Your task to perform on an android device: change timer sound Image 0: 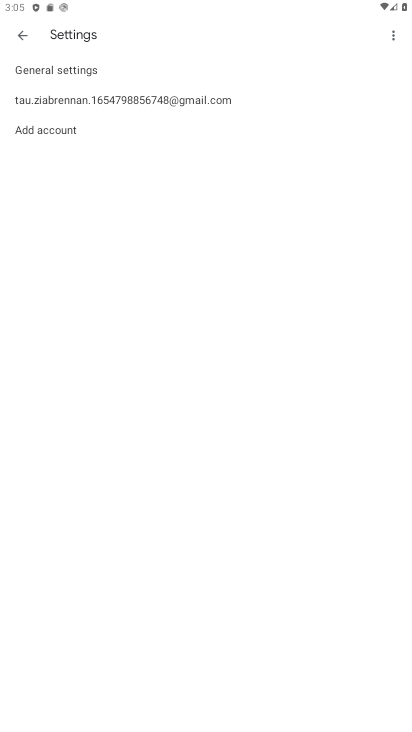
Step 0: press back button
Your task to perform on an android device: change timer sound Image 1: 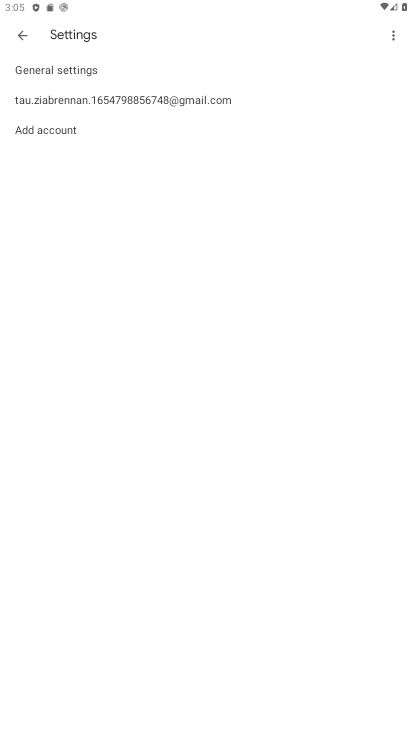
Step 1: press back button
Your task to perform on an android device: change timer sound Image 2: 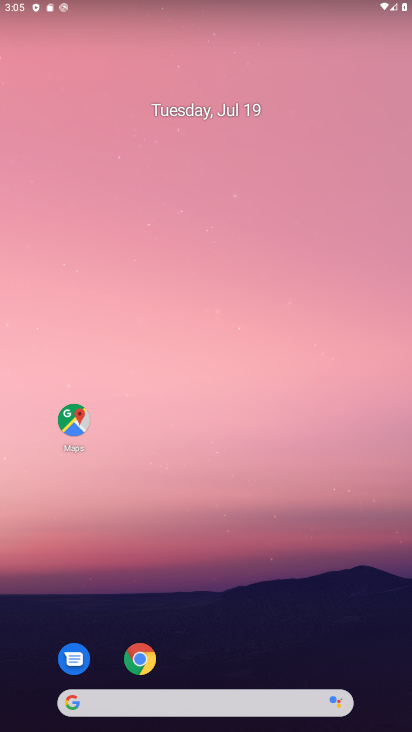
Step 2: drag from (212, 645) to (167, 55)
Your task to perform on an android device: change timer sound Image 3: 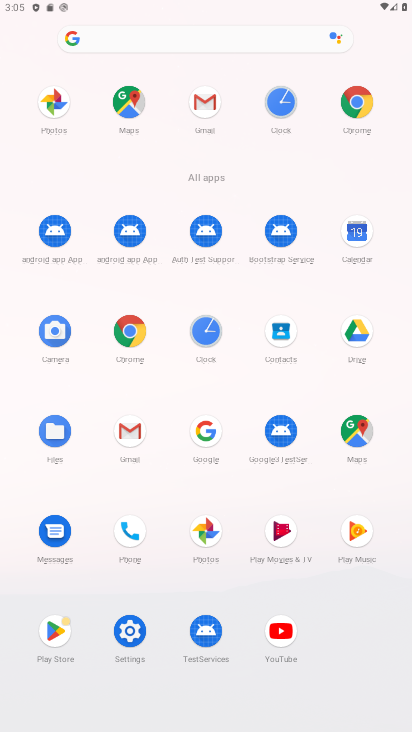
Step 3: click (127, 646)
Your task to perform on an android device: change timer sound Image 4: 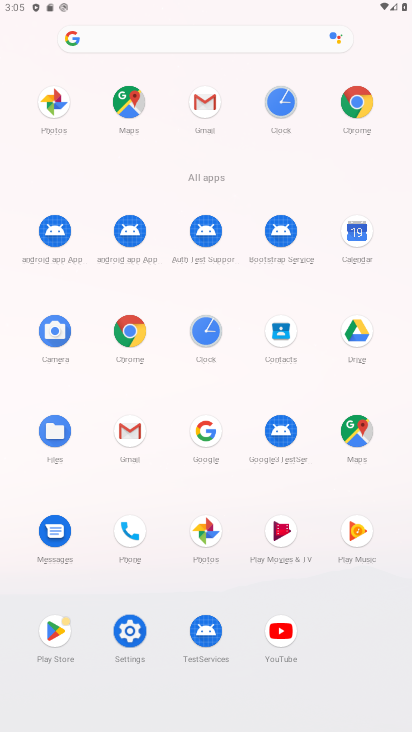
Step 4: click (126, 645)
Your task to perform on an android device: change timer sound Image 5: 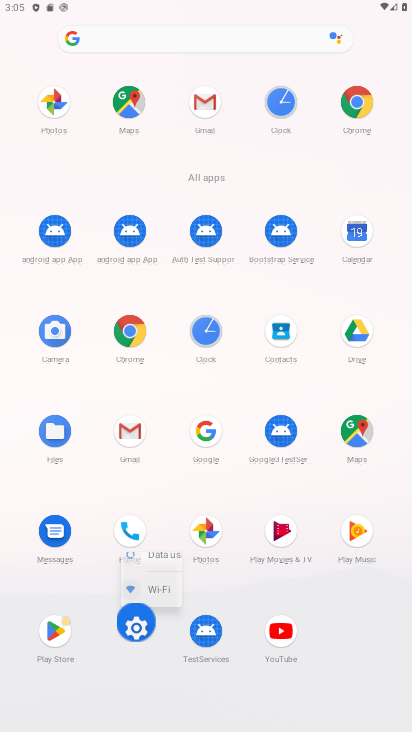
Step 5: click (132, 636)
Your task to perform on an android device: change timer sound Image 6: 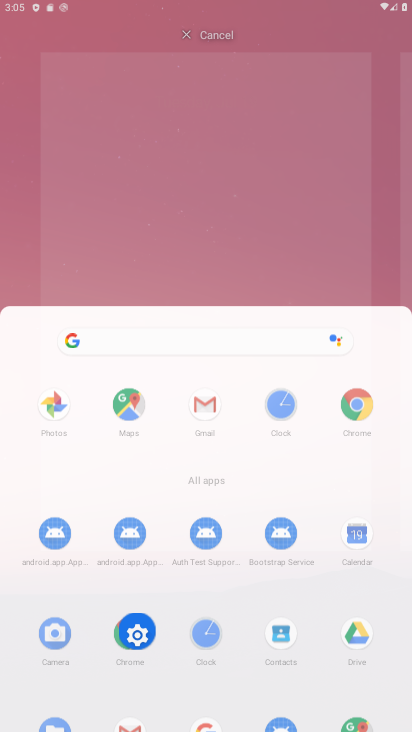
Step 6: click (133, 637)
Your task to perform on an android device: change timer sound Image 7: 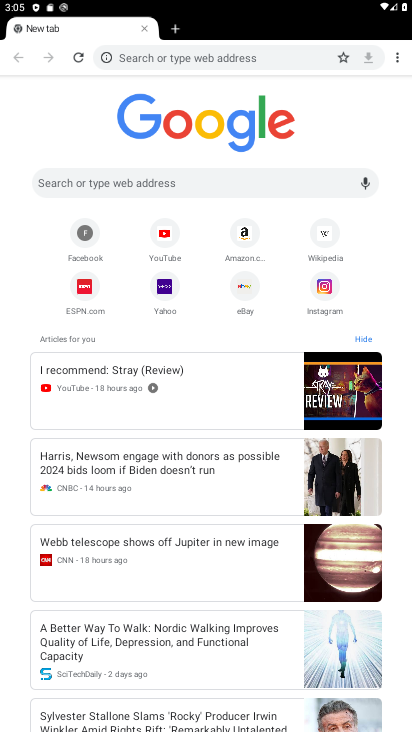
Step 7: press back button
Your task to perform on an android device: change timer sound Image 8: 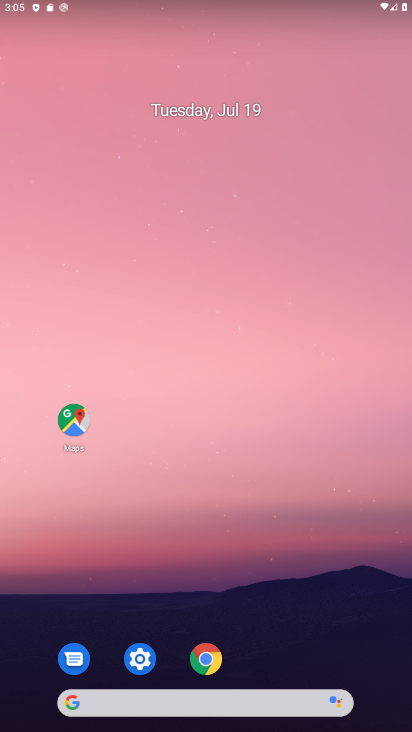
Step 8: drag from (213, 536) to (141, 17)
Your task to perform on an android device: change timer sound Image 9: 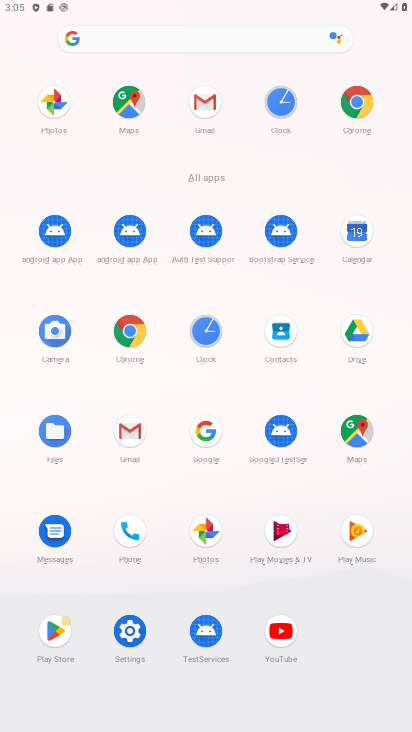
Step 9: click (129, 633)
Your task to perform on an android device: change timer sound Image 10: 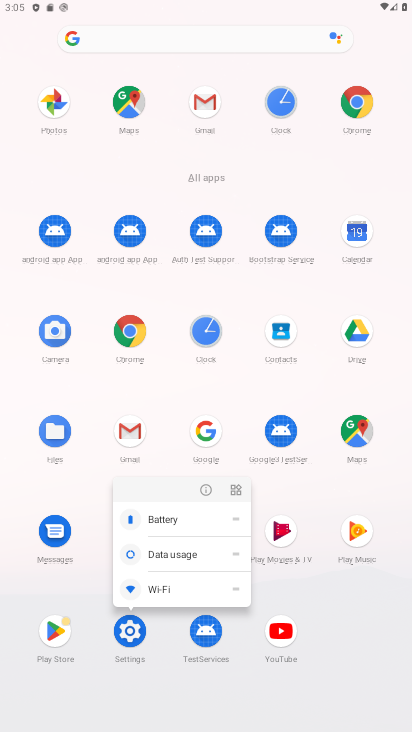
Step 10: click (129, 631)
Your task to perform on an android device: change timer sound Image 11: 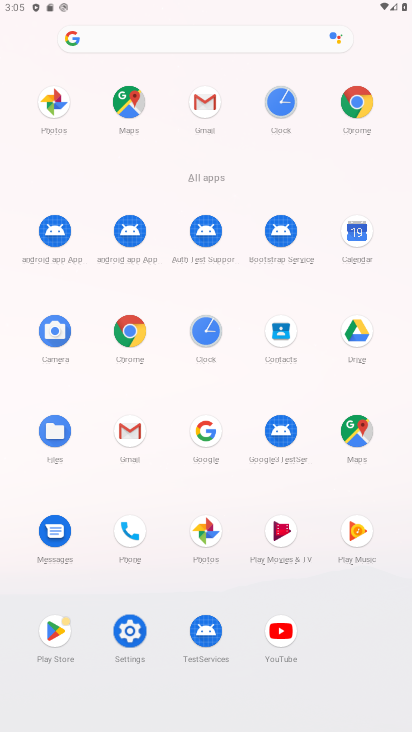
Step 11: click (129, 631)
Your task to perform on an android device: change timer sound Image 12: 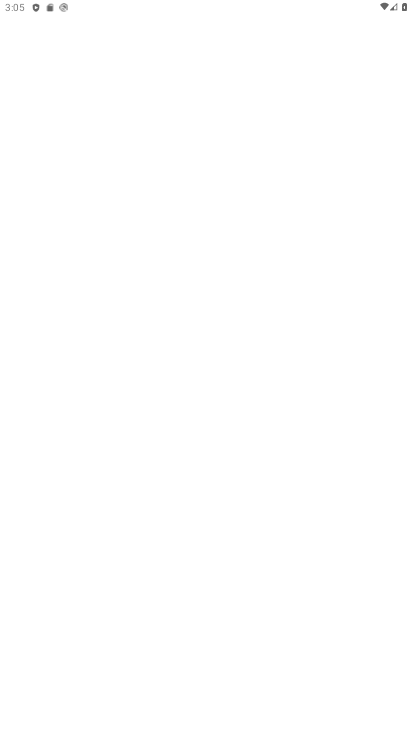
Step 12: click (133, 630)
Your task to perform on an android device: change timer sound Image 13: 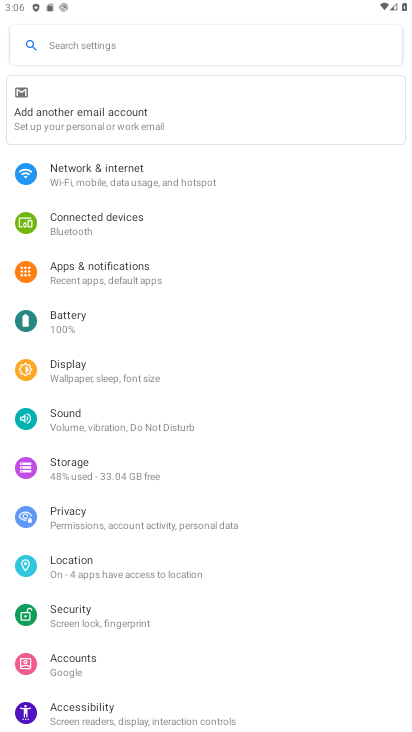
Step 13: click (81, 382)
Your task to perform on an android device: change timer sound Image 14: 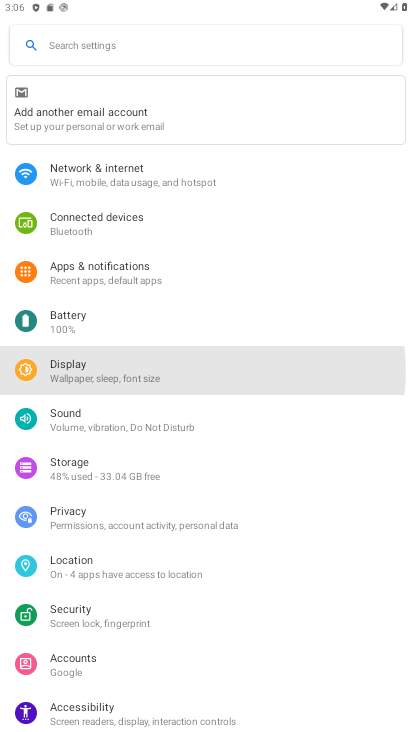
Step 14: click (78, 380)
Your task to perform on an android device: change timer sound Image 15: 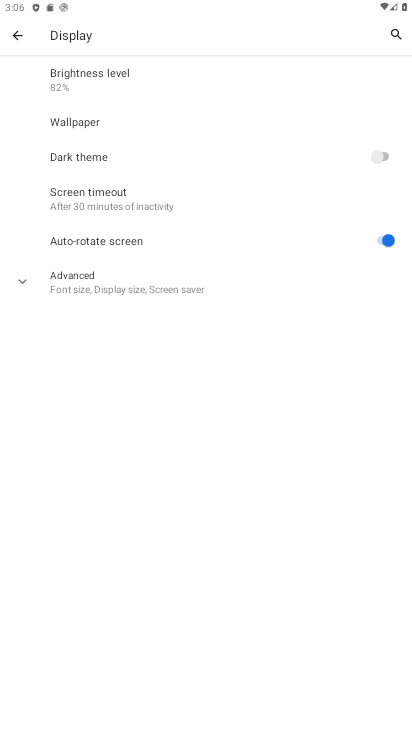
Step 15: click (83, 288)
Your task to perform on an android device: change timer sound Image 16: 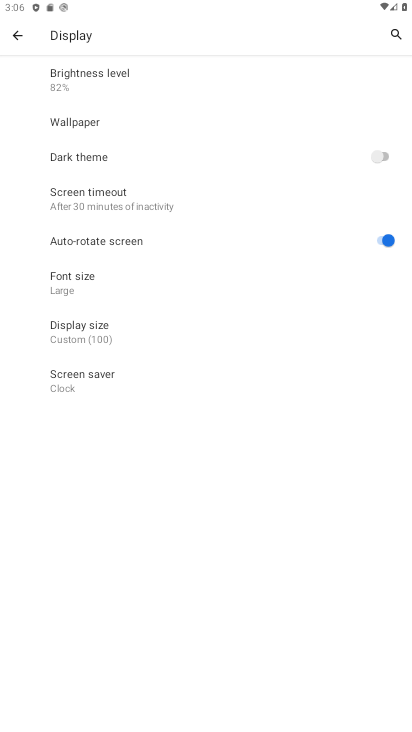
Step 16: click (73, 284)
Your task to perform on an android device: change timer sound Image 17: 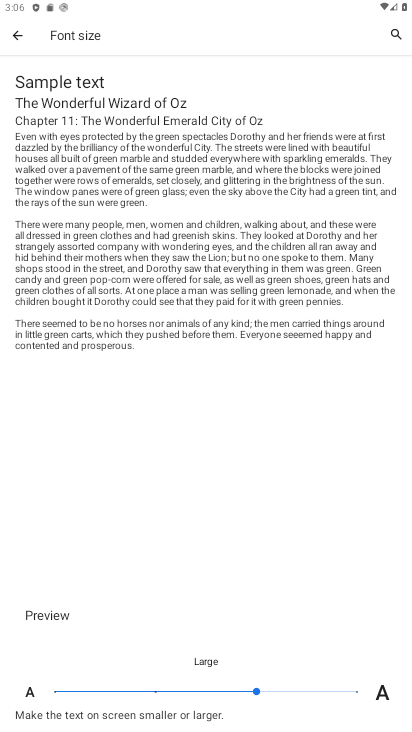
Step 17: click (361, 692)
Your task to perform on an android device: change timer sound Image 18: 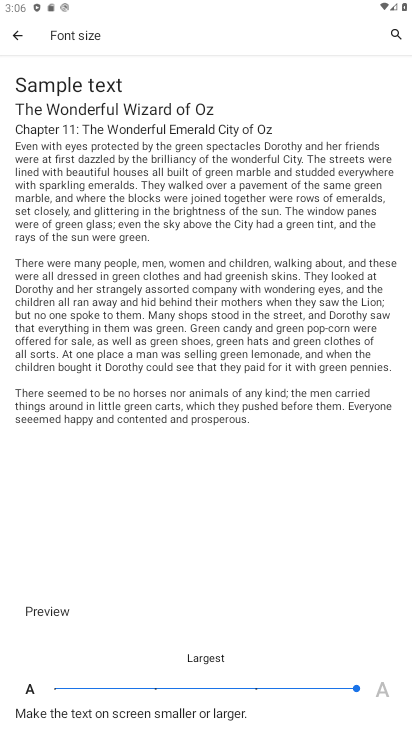
Step 18: press back button
Your task to perform on an android device: change timer sound Image 19: 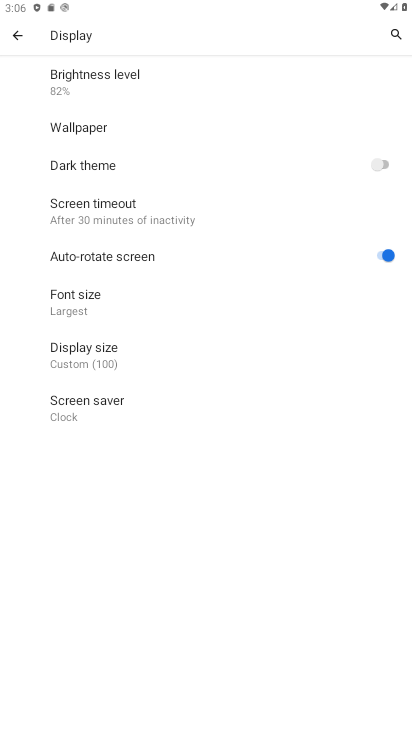
Step 19: press home button
Your task to perform on an android device: change timer sound Image 20: 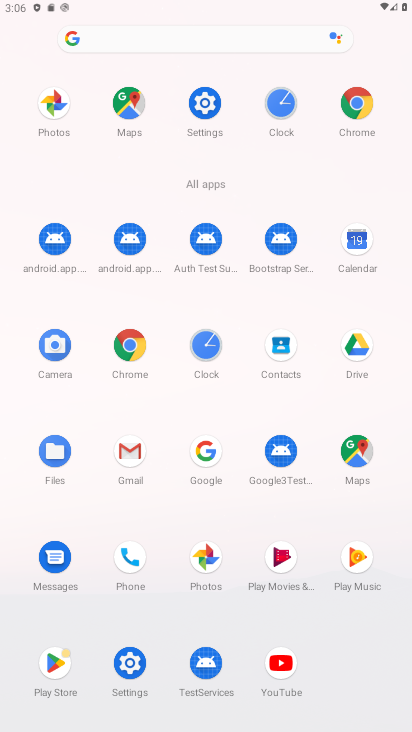
Step 20: click (202, 353)
Your task to perform on an android device: change timer sound Image 21: 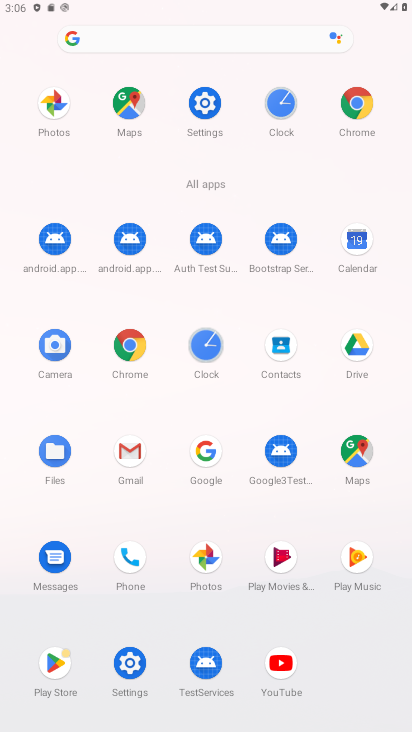
Step 21: click (205, 349)
Your task to perform on an android device: change timer sound Image 22: 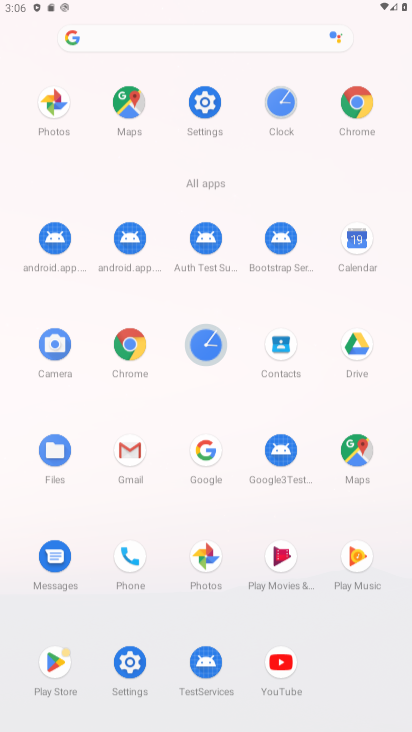
Step 22: click (207, 348)
Your task to perform on an android device: change timer sound Image 23: 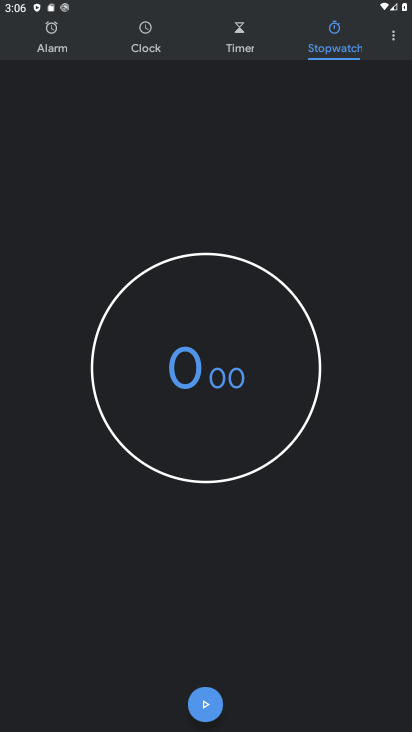
Step 23: drag from (399, 40) to (384, 142)
Your task to perform on an android device: change timer sound Image 24: 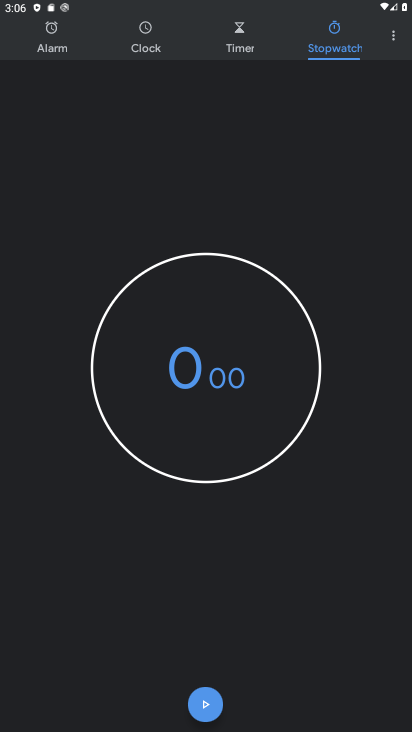
Step 24: click (318, 57)
Your task to perform on an android device: change timer sound Image 25: 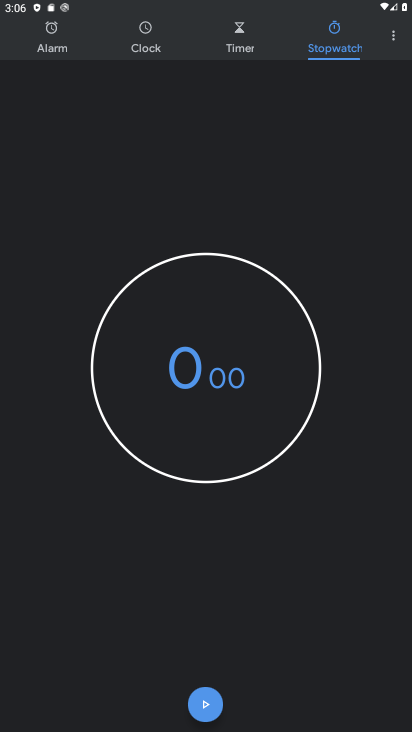
Step 25: click (393, 38)
Your task to perform on an android device: change timer sound Image 26: 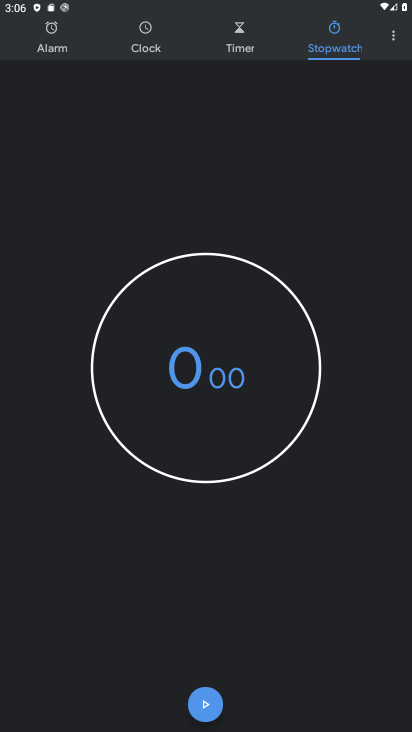
Step 26: click (393, 38)
Your task to perform on an android device: change timer sound Image 27: 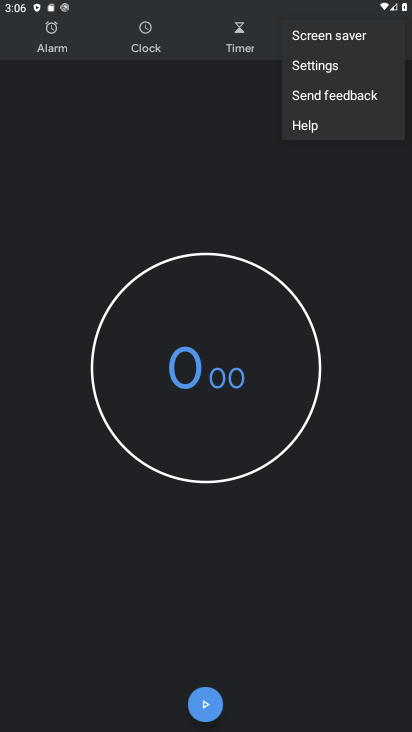
Step 27: click (315, 63)
Your task to perform on an android device: change timer sound Image 28: 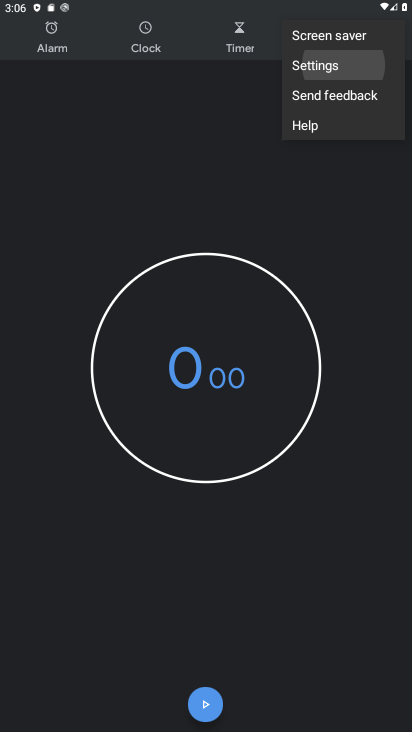
Step 28: click (315, 63)
Your task to perform on an android device: change timer sound Image 29: 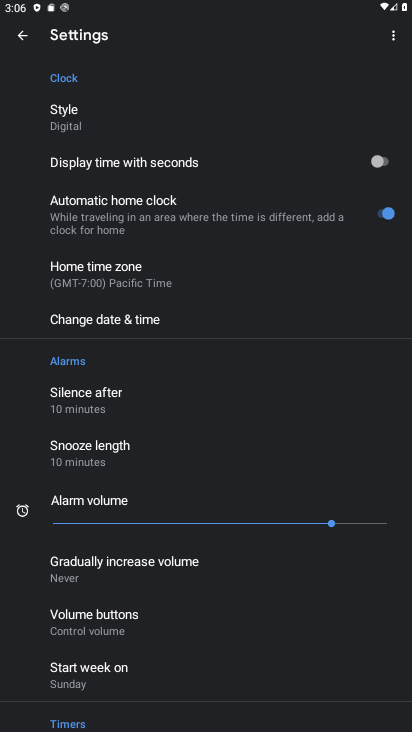
Step 29: drag from (124, 591) to (147, 365)
Your task to perform on an android device: change timer sound Image 30: 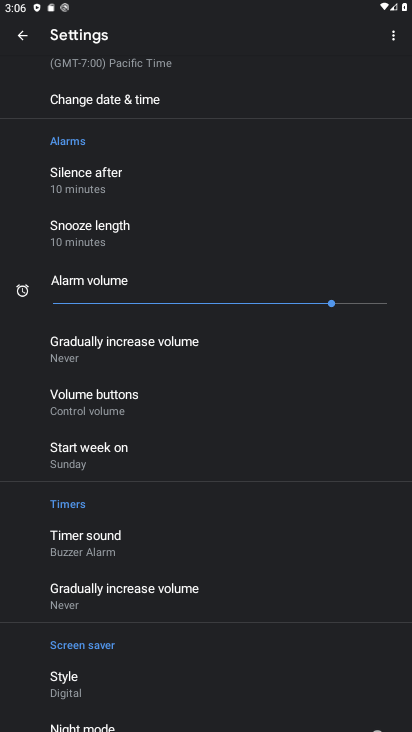
Step 30: click (87, 543)
Your task to perform on an android device: change timer sound Image 31: 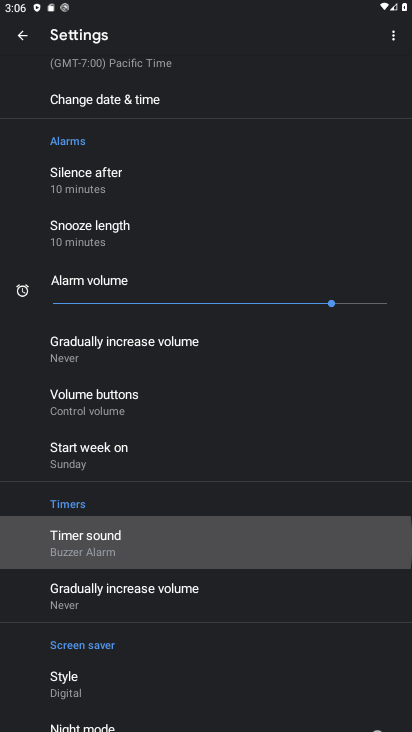
Step 31: click (87, 543)
Your task to perform on an android device: change timer sound Image 32: 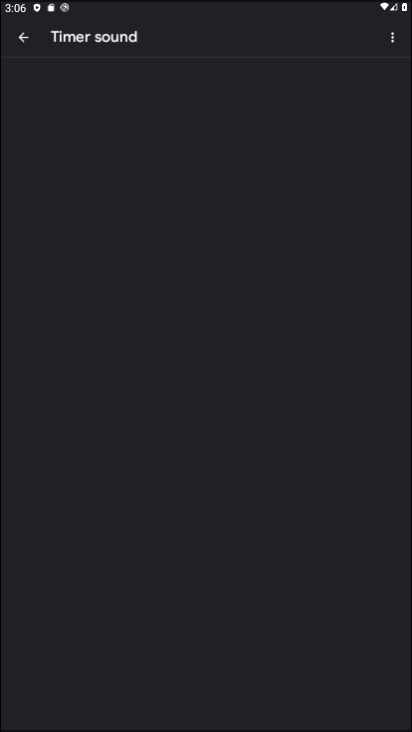
Step 32: click (87, 544)
Your task to perform on an android device: change timer sound Image 33: 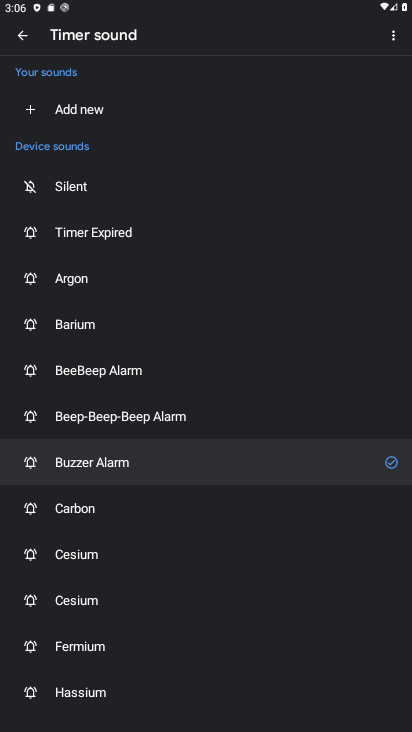
Step 33: click (77, 556)
Your task to perform on an android device: change timer sound Image 34: 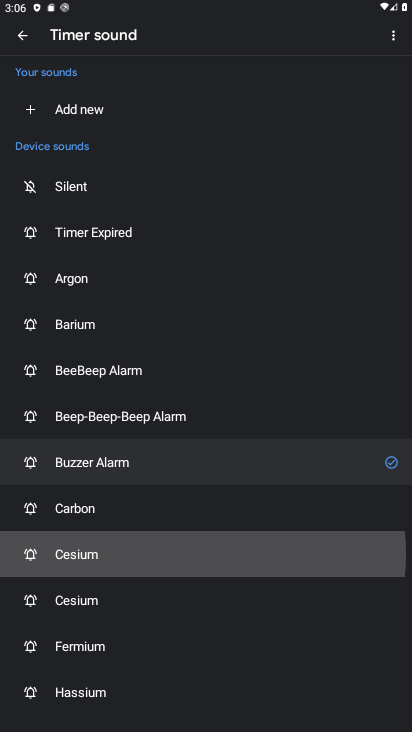
Step 34: click (78, 553)
Your task to perform on an android device: change timer sound Image 35: 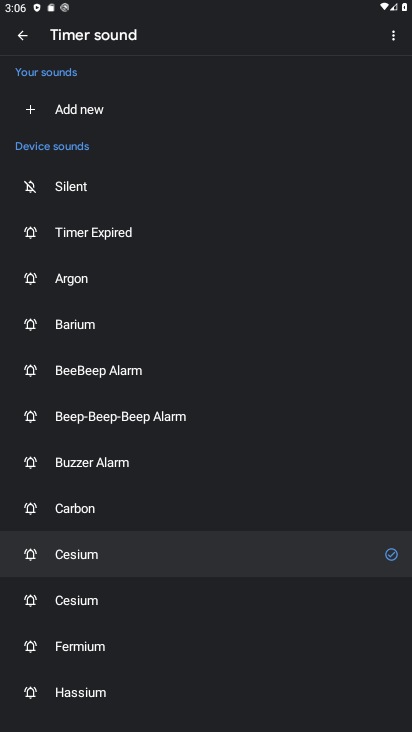
Step 35: task complete